Your task to perform on an android device: install app "Adobe Acrobat Reader: Edit PDF" Image 0: 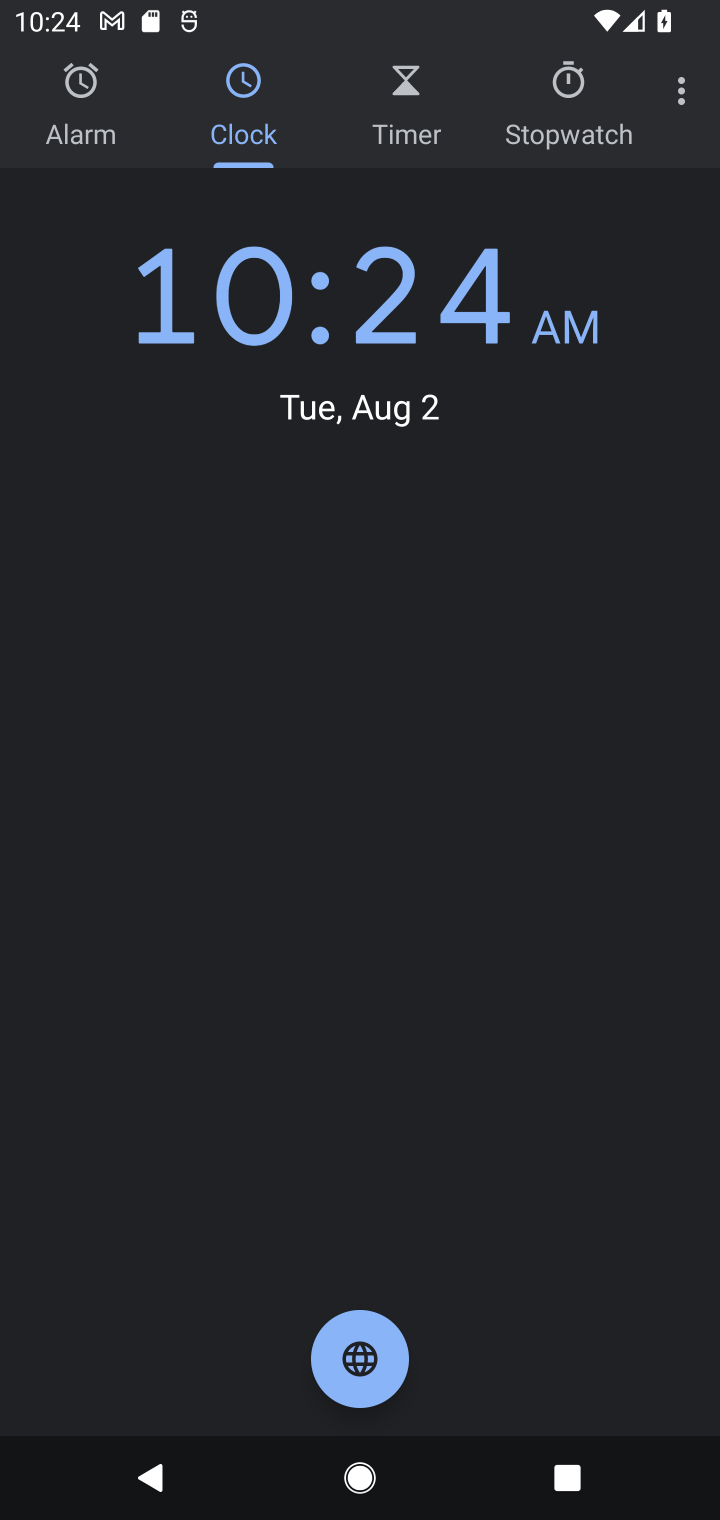
Step 0: click (48, 93)
Your task to perform on an android device: install app "Adobe Acrobat Reader: Edit PDF" Image 1: 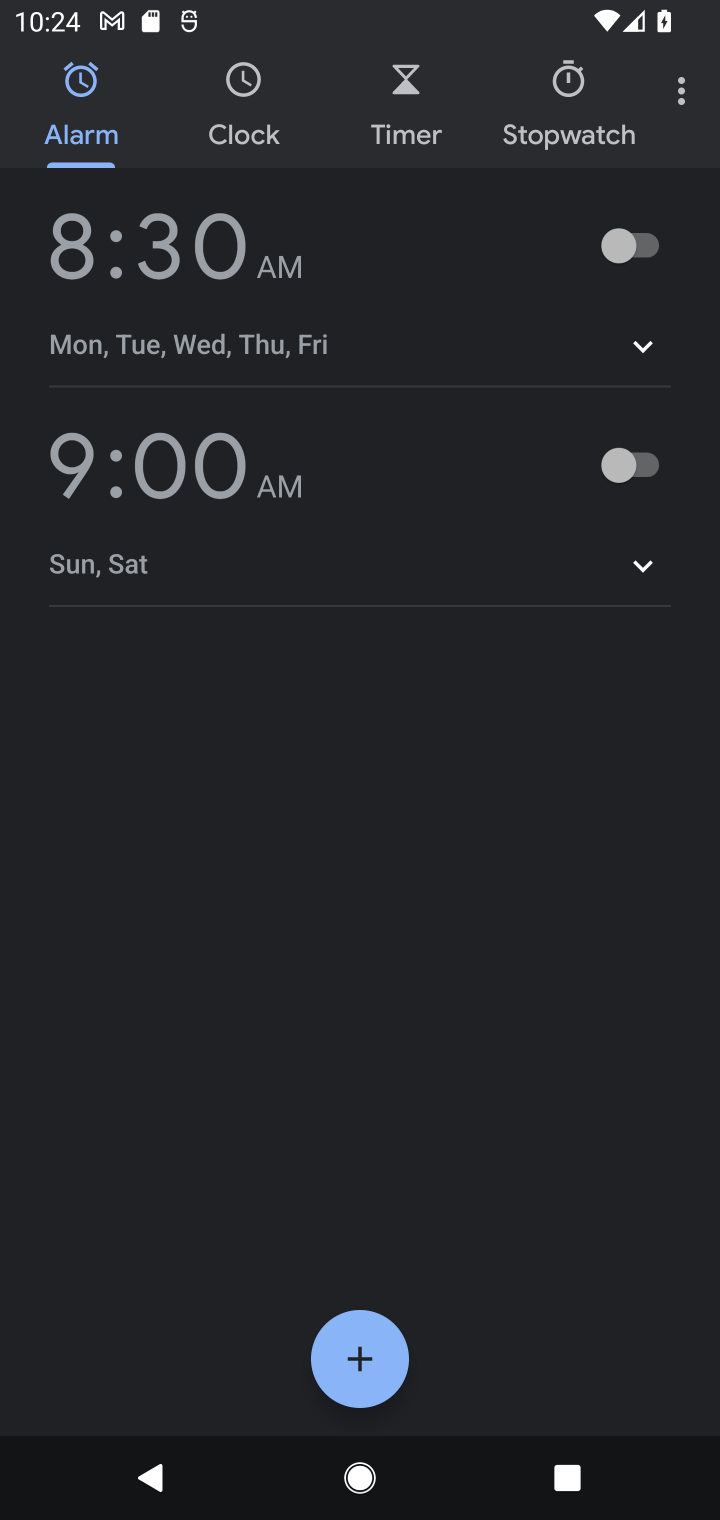
Step 1: press home button
Your task to perform on an android device: install app "Adobe Acrobat Reader: Edit PDF" Image 2: 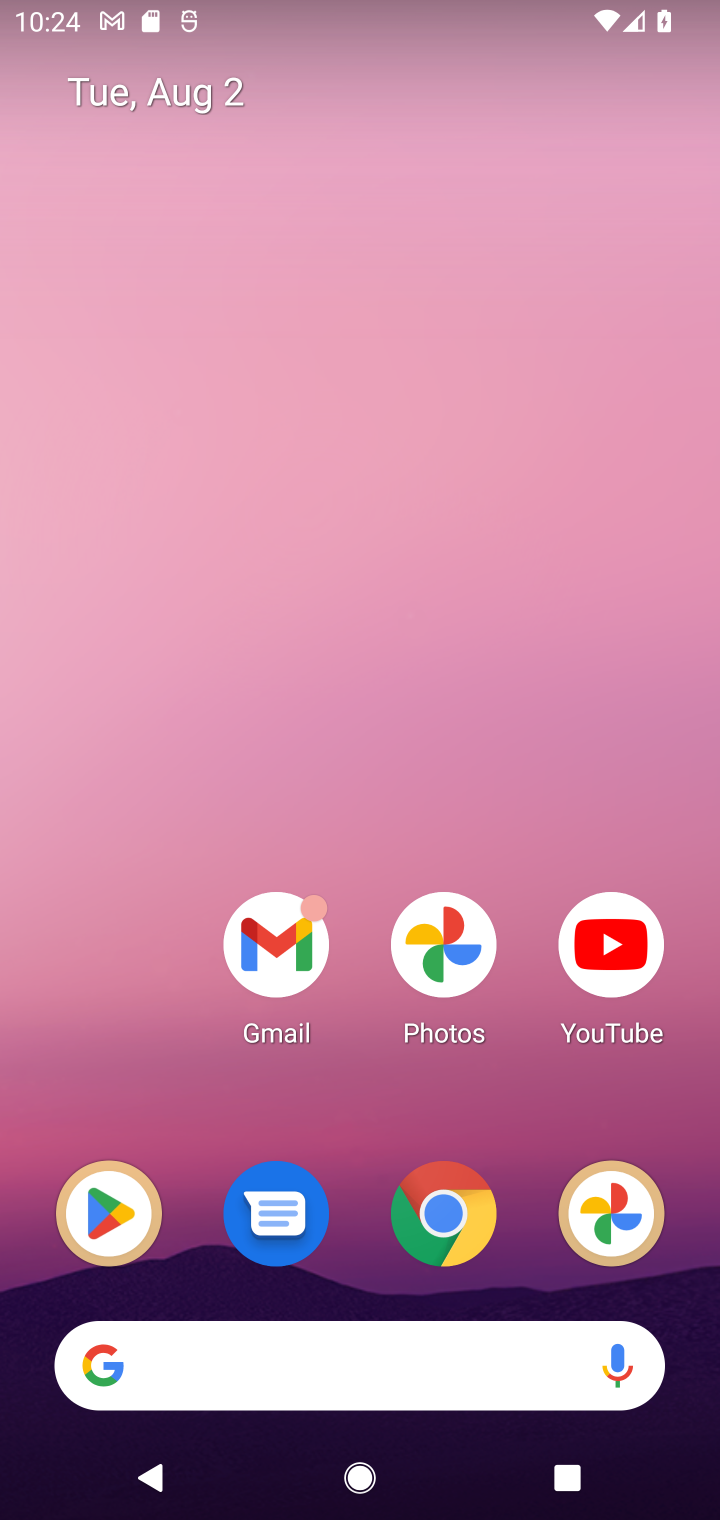
Step 2: click (89, 1224)
Your task to perform on an android device: install app "Adobe Acrobat Reader: Edit PDF" Image 3: 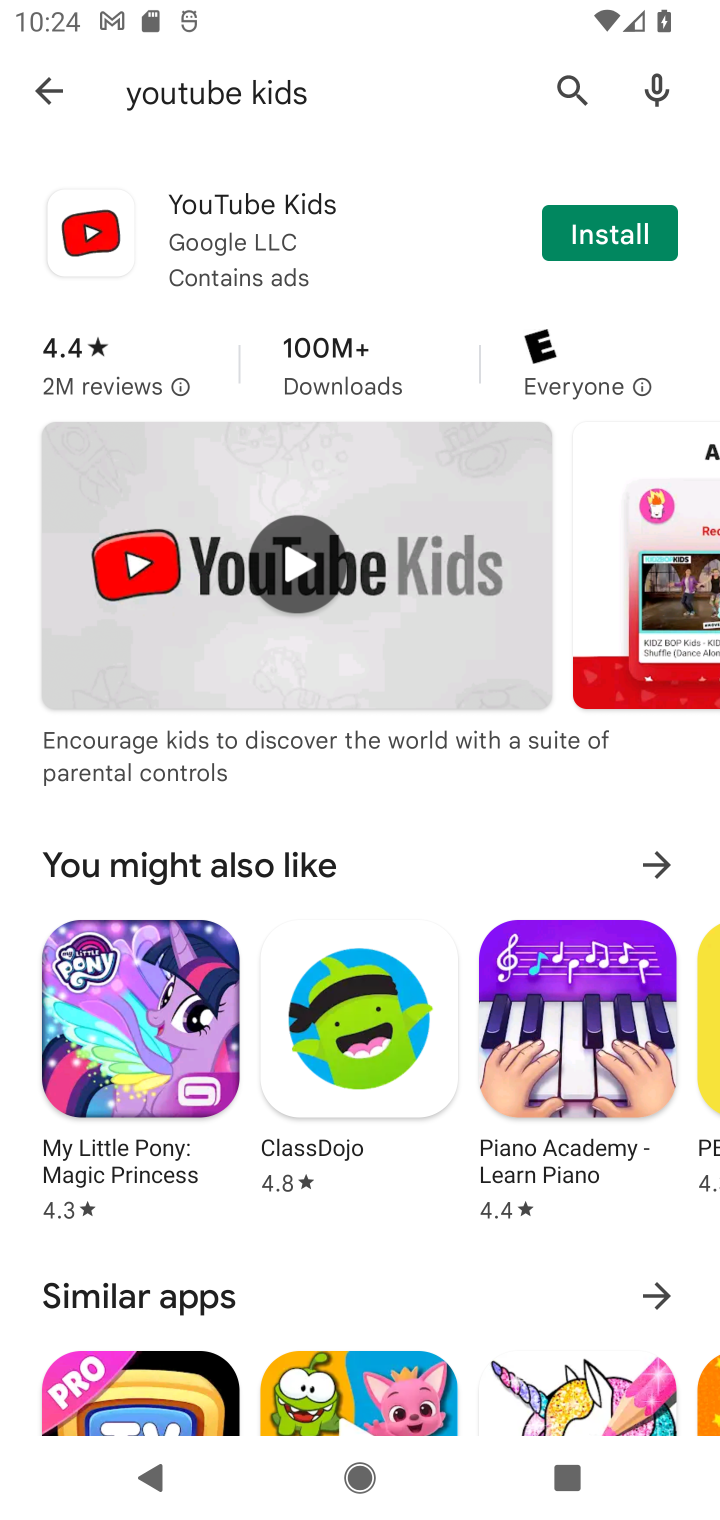
Step 3: click (42, 95)
Your task to perform on an android device: install app "Adobe Acrobat Reader: Edit PDF" Image 4: 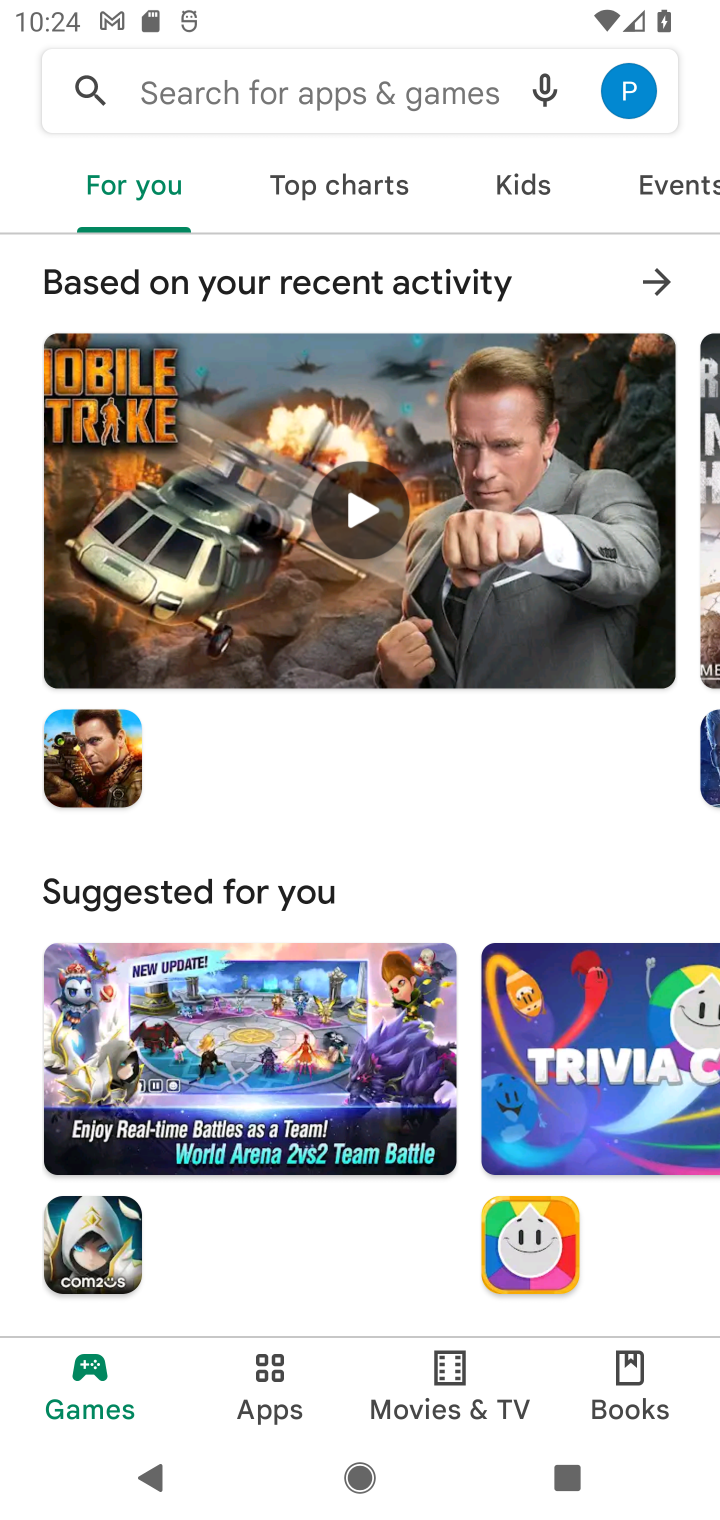
Step 4: click (253, 85)
Your task to perform on an android device: install app "Adobe Acrobat Reader: Edit PDF" Image 5: 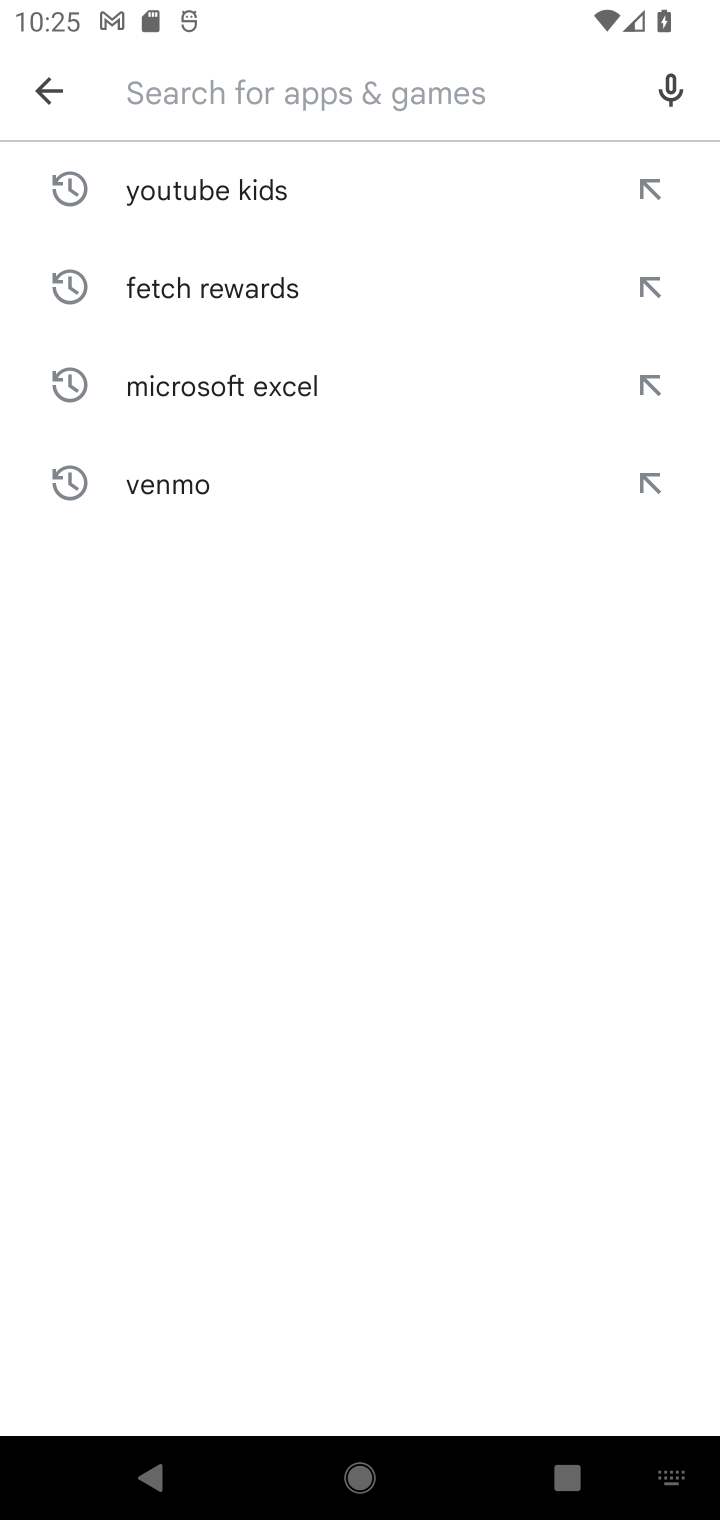
Step 5: type "Adobe Acrobat Reader: Edit PDF"
Your task to perform on an android device: install app "Adobe Acrobat Reader: Edit PDF" Image 6: 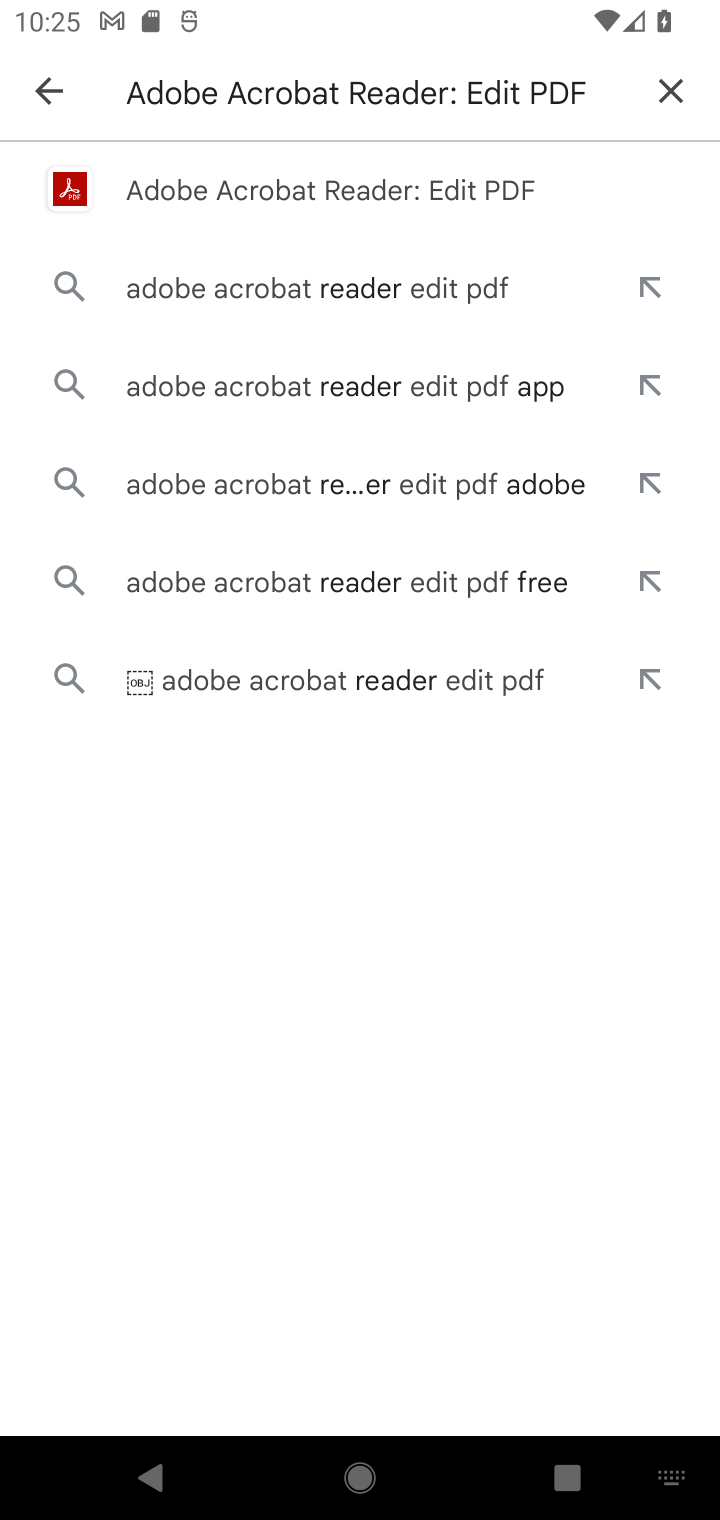
Step 6: click (264, 184)
Your task to perform on an android device: install app "Adobe Acrobat Reader: Edit PDF" Image 7: 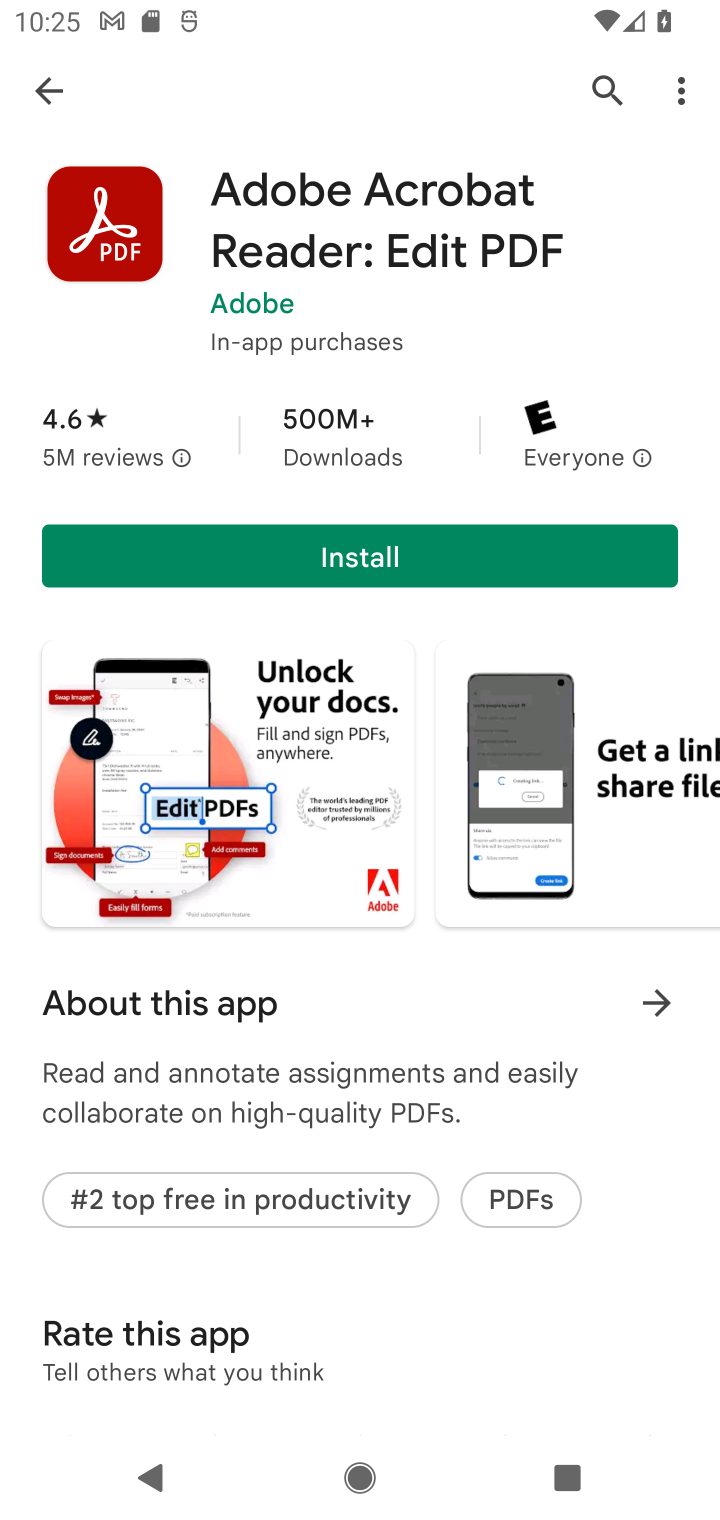
Step 7: click (341, 550)
Your task to perform on an android device: install app "Adobe Acrobat Reader: Edit PDF" Image 8: 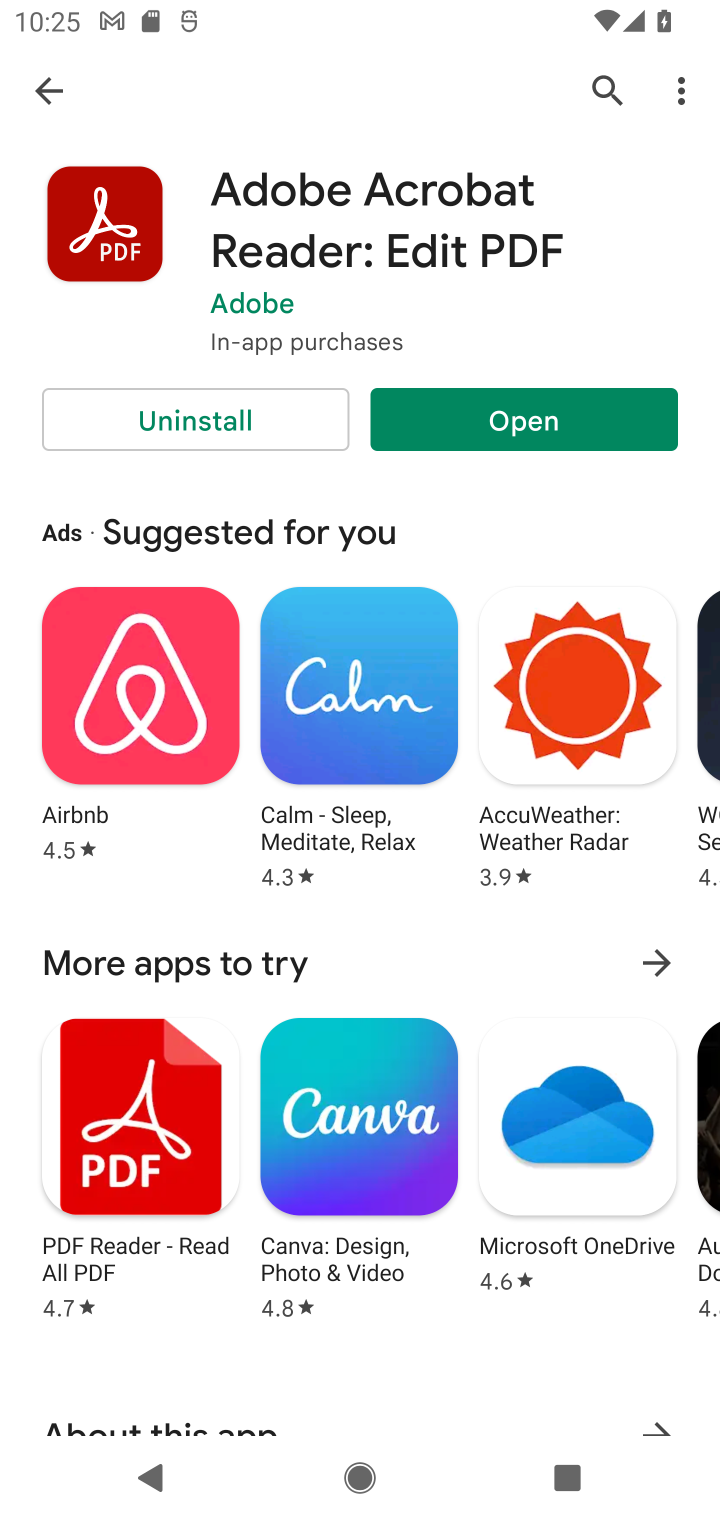
Step 8: click (474, 410)
Your task to perform on an android device: install app "Adobe Acrobat Reader: Edit PDF" Image 9: 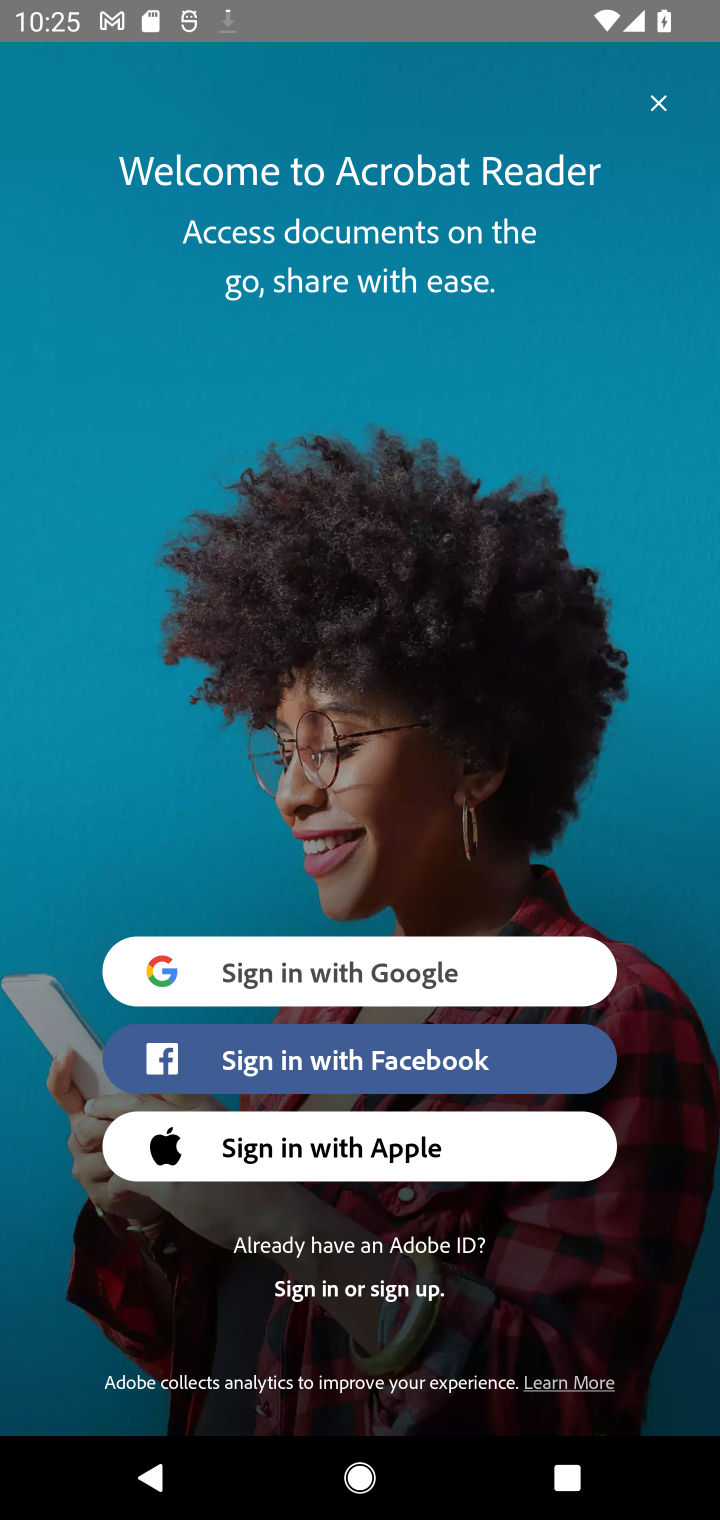
Step 9: task complete